Your task to perform on an android device: Open Youtube and go to "Your channel" Image 0: 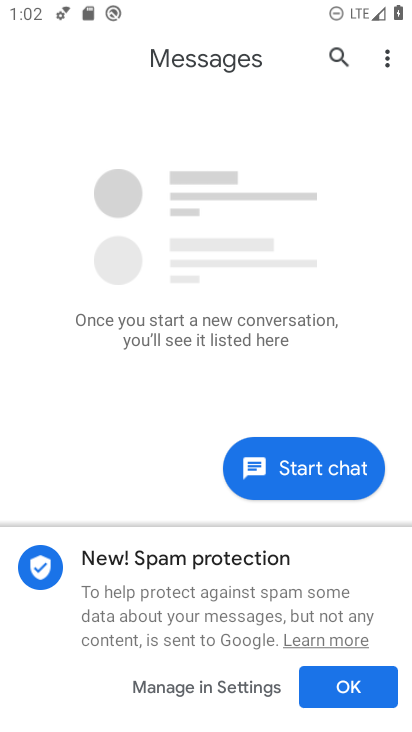
Step 0: press home button
Your task to perform on an android device: Open Youtube and go to "Your channel" Image 1: 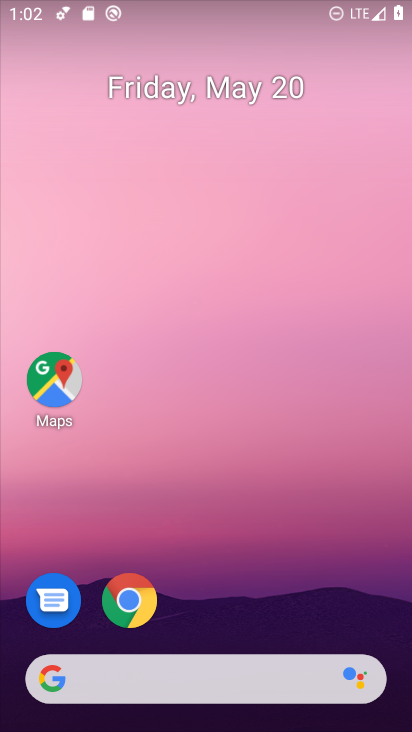
Step 1: drag from (180, 656) to (216, 41)
Your task to perform on an android device: Open Youtube and go to "Your channel" Image 2: 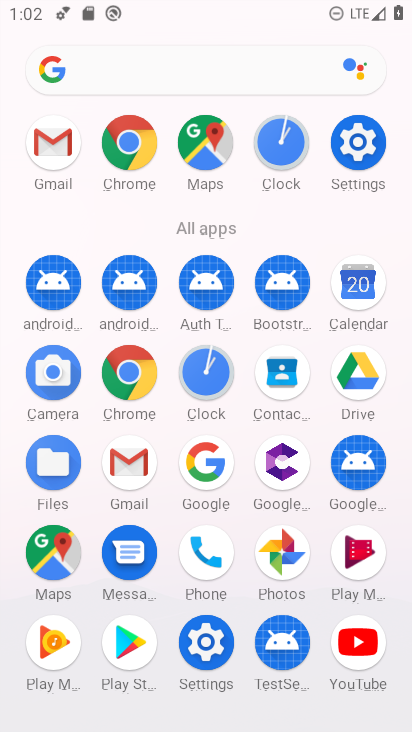
Step 2: click (351, 658)
Your task to perform on an android device: Open Youtube and go to "Your channel" Image 3: 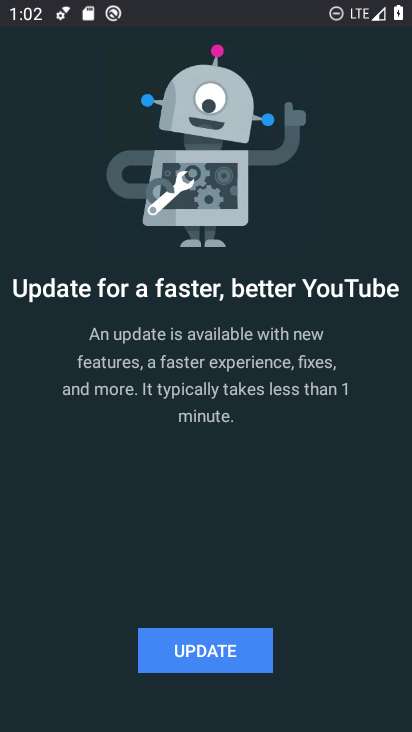
Step 3: click (185, 660)
Your task to perform on an android device: Open Youtube and go to "Your channel" Image 4: 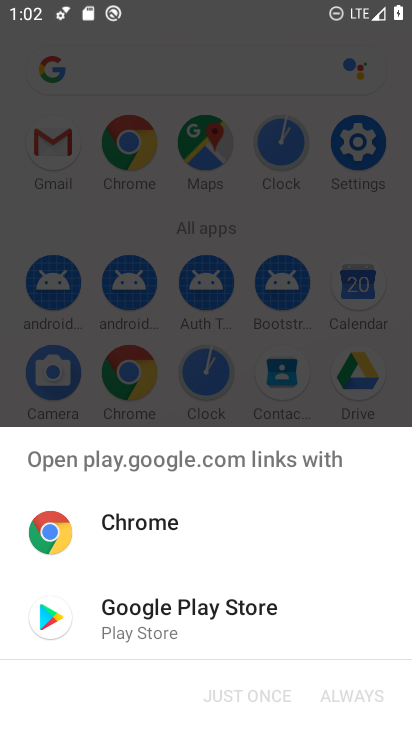
Step 4: click (141, 618)
Your task to perform on an android device: Open Youtube and go to "Your channel" Image 5: 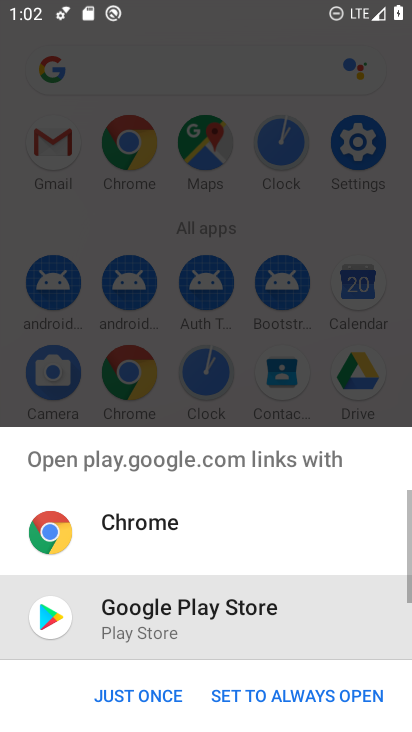
Step 5: click (107, 703)
Your task to perform on an android device: Open Youtube and go to "Your channel" Image 6: 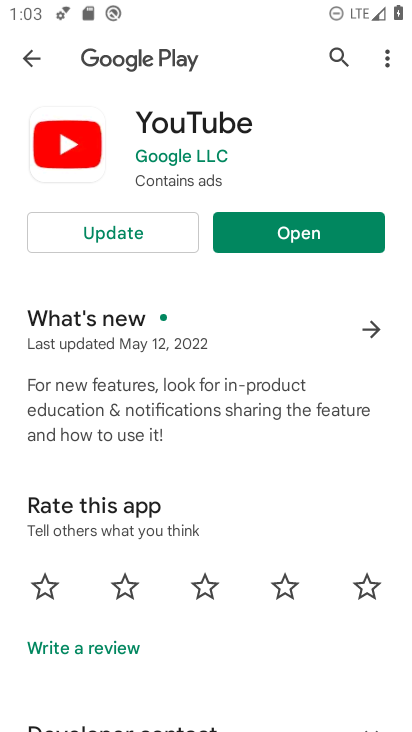
Step 6: click (179, 229)
Your task to perform on an android device: Open Youtube and go to "Your channel" Image 7: 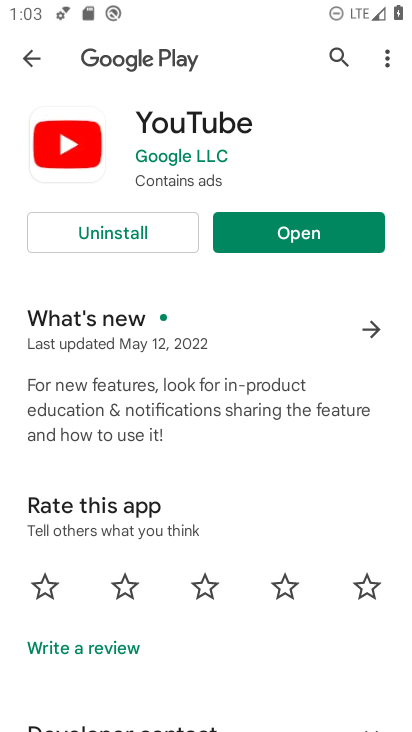
Step 7: click (319, 253)
Your task to perform on an android device: Open Youtube and go to "Your channel" Image 8: 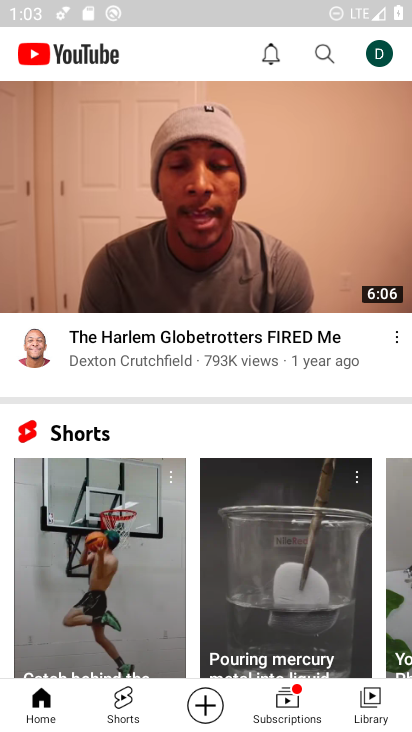
Step 8: click (380, 65)
Your task to perform on an android device: Open Youtube and go to "Your channel" Image 9: 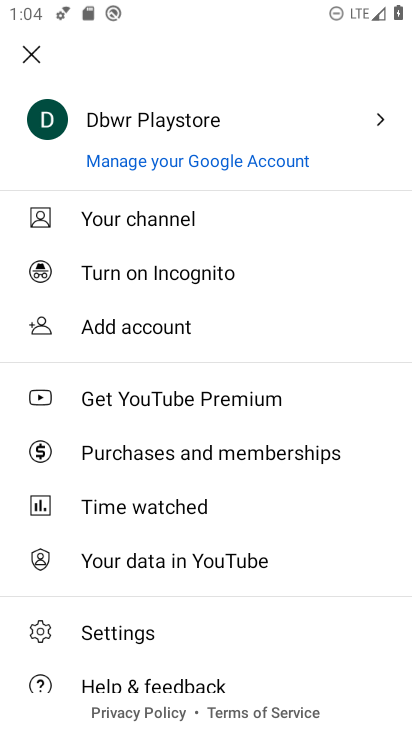
Step 9: click (83, 223)
Your task to perform on an android device: Open Youtube and go to "Your channel" Image 10: 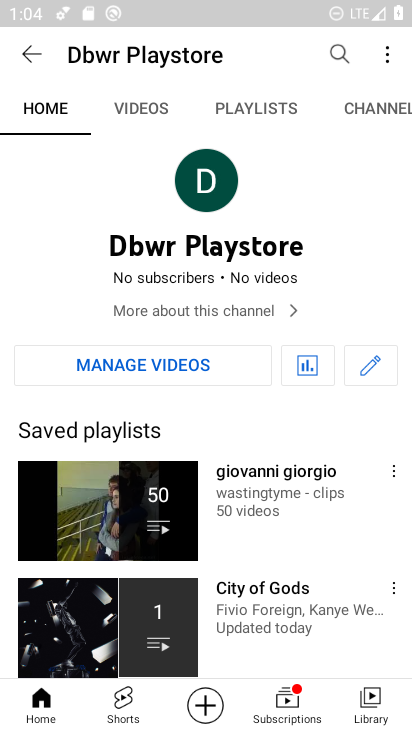
Step 10: task complete